Your task to perform on an android device: What is the recent news? Image 0: 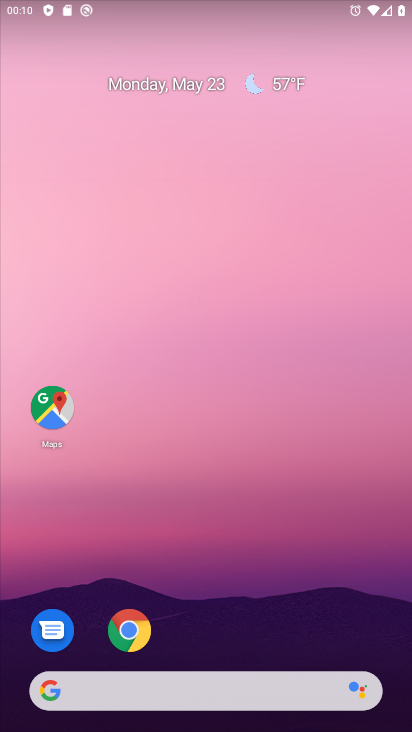
Step 0: drag from (254, 476) to (169, 0)
Your task to perform on an android device: What is the recent news? Image 1: 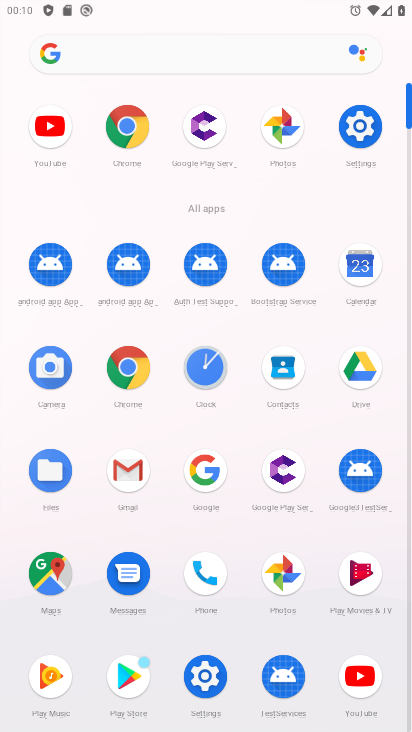
Step 1: click (210, 459)
Your task to perform on an android device: What is the recent news? Image 2: 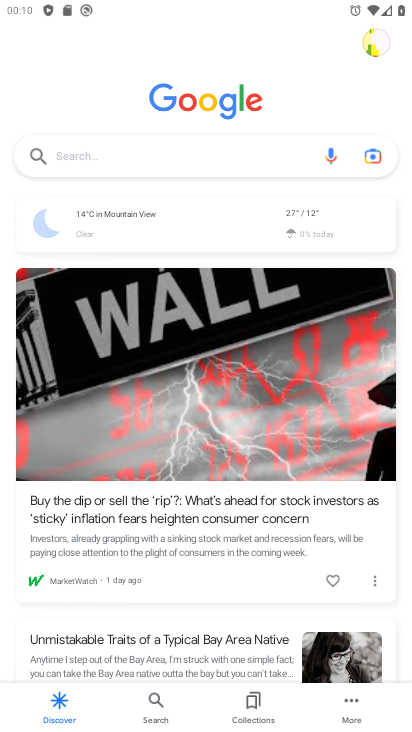
Step 2: click (140, 142)
Your task to perform on an android device: What is the recent news? Image 3: 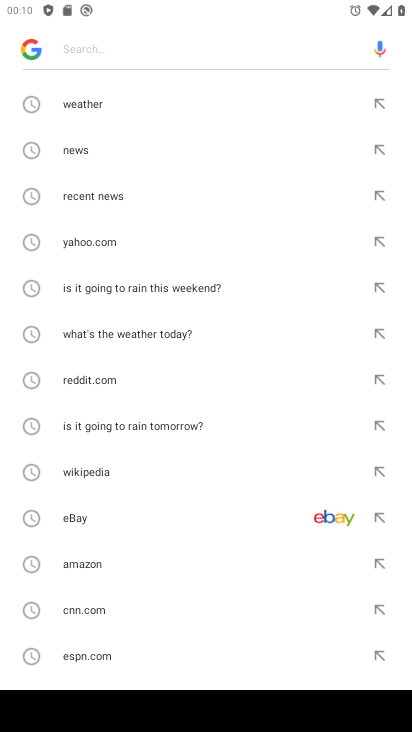
Step 3: click (124, 197)
Your task to perform on an android device: What is the recent news? Image 4: 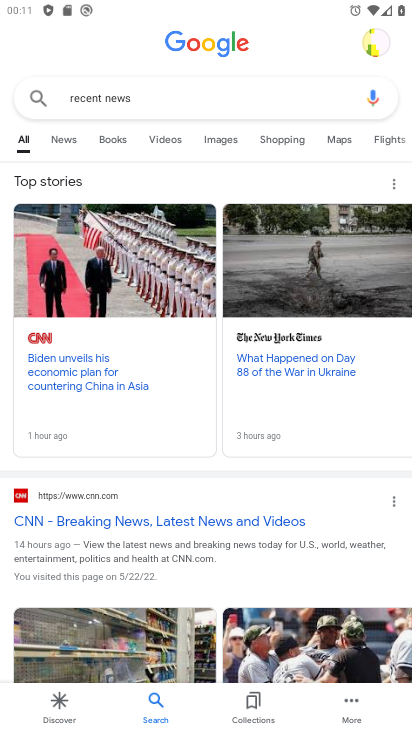
Step 4: task complete